Your task to perform on an android device: uninstall "Google Calendar" Image 0: 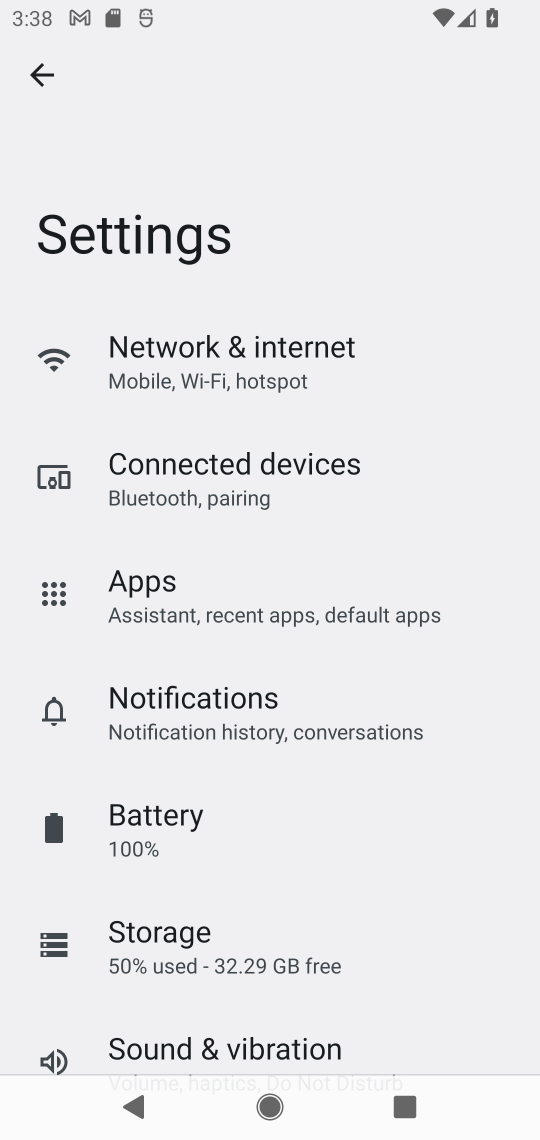
Step 0: press home button
Your task to perform on an android device: uninstall "Google Calendar" Image 1: 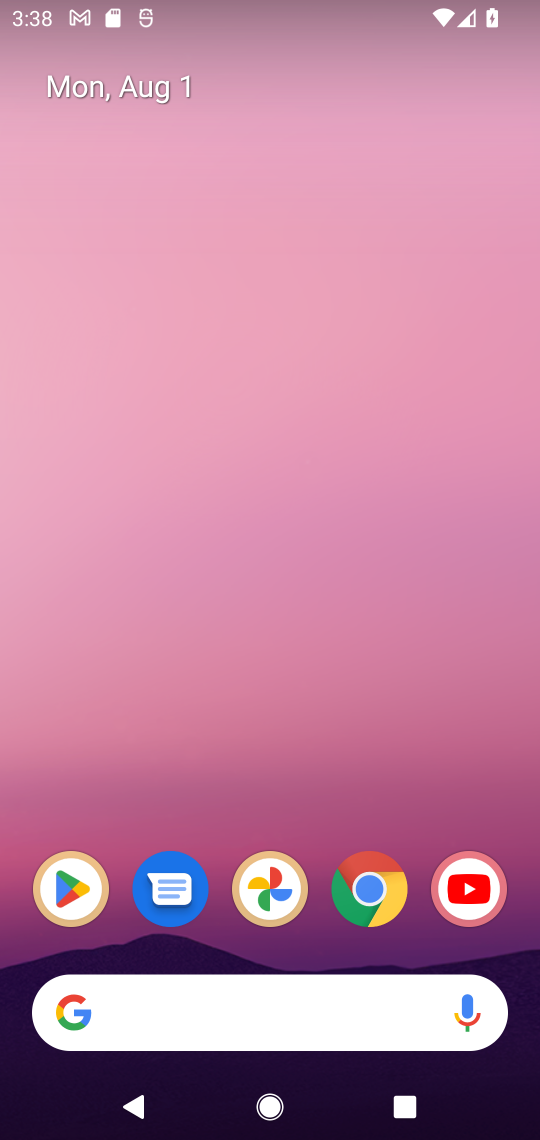
Step 1: click (97, 875)
Your task to perform on an android device: uninstall "Google Calendar" Image 2: 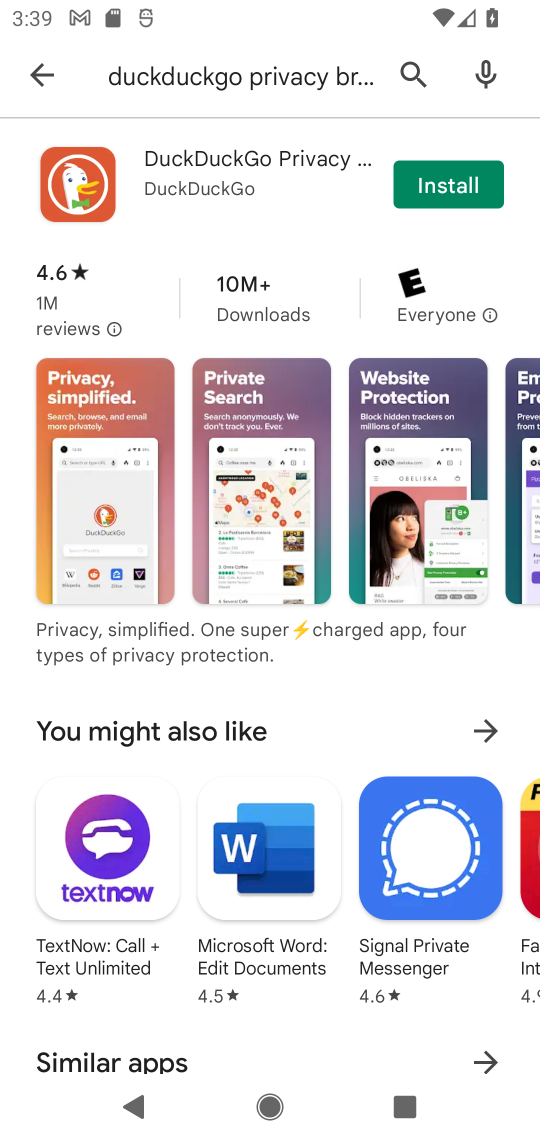
Step 2: click (400, 64)
Your task to perform on an android device: uninstall "Google Calendar" Image 3: 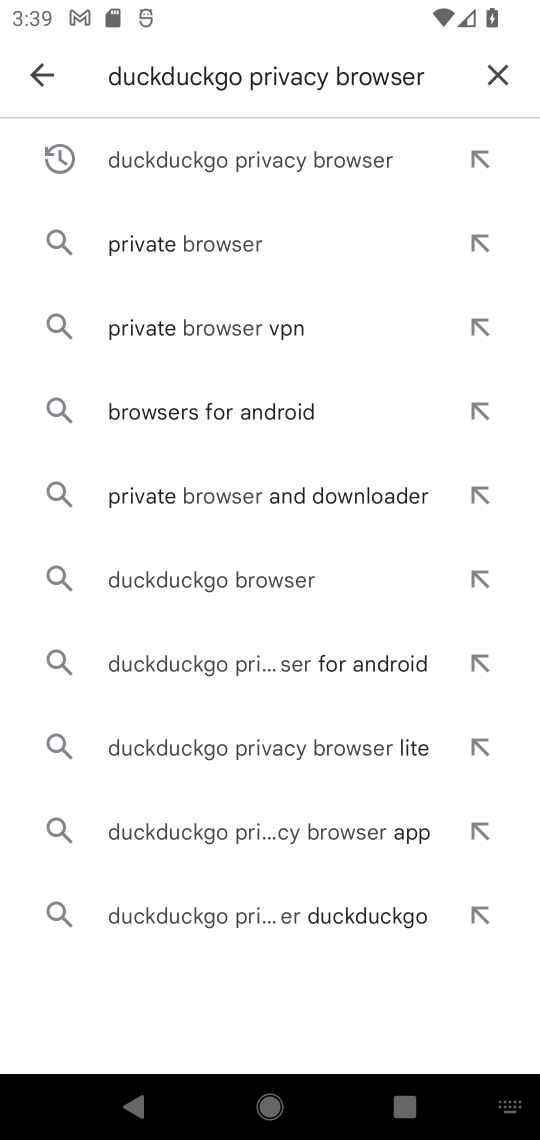
Step 3: click (499, 85)
Your task to perform on an android device: uninstall "Google Calendar" Image 4: 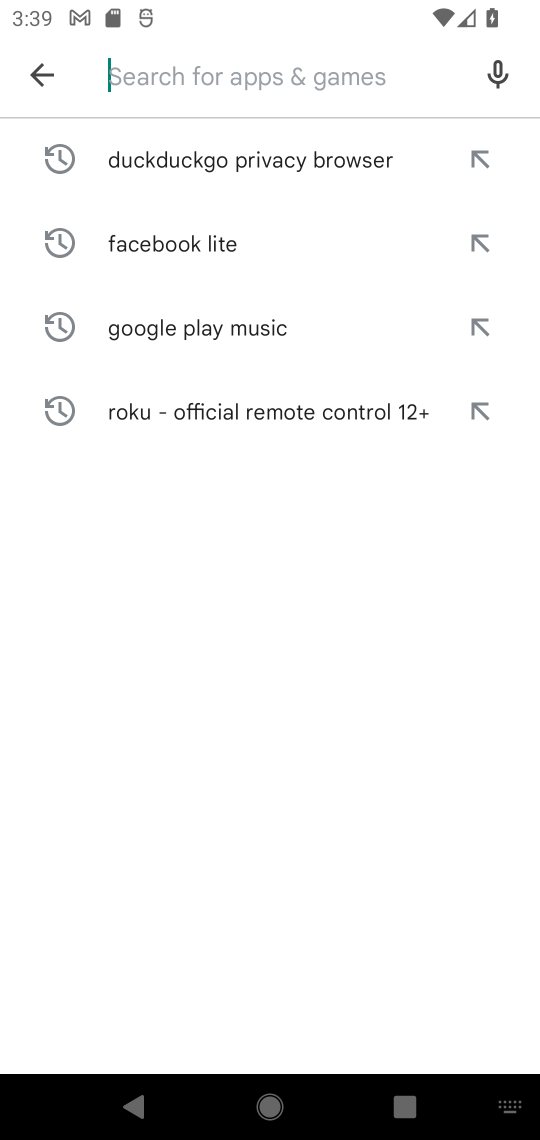
Step 4: type "Google Calendar"
Your task to perform on an android device: uninstall "Google Calendar" Image 5: 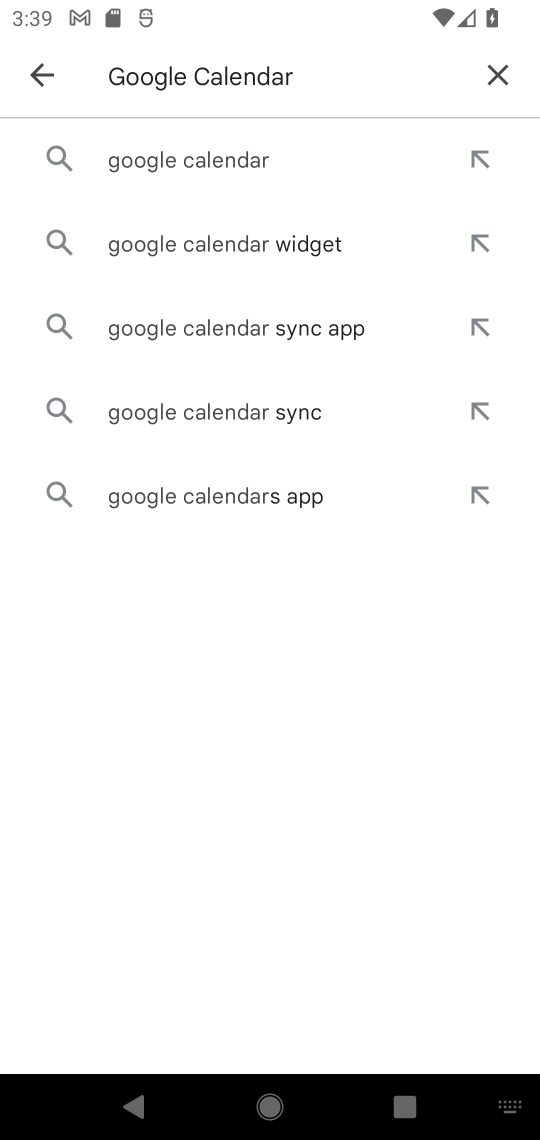
Step 5: click (222, 153)
Your task to perform on an android device: uninstall "Google Calendar" Image 6: 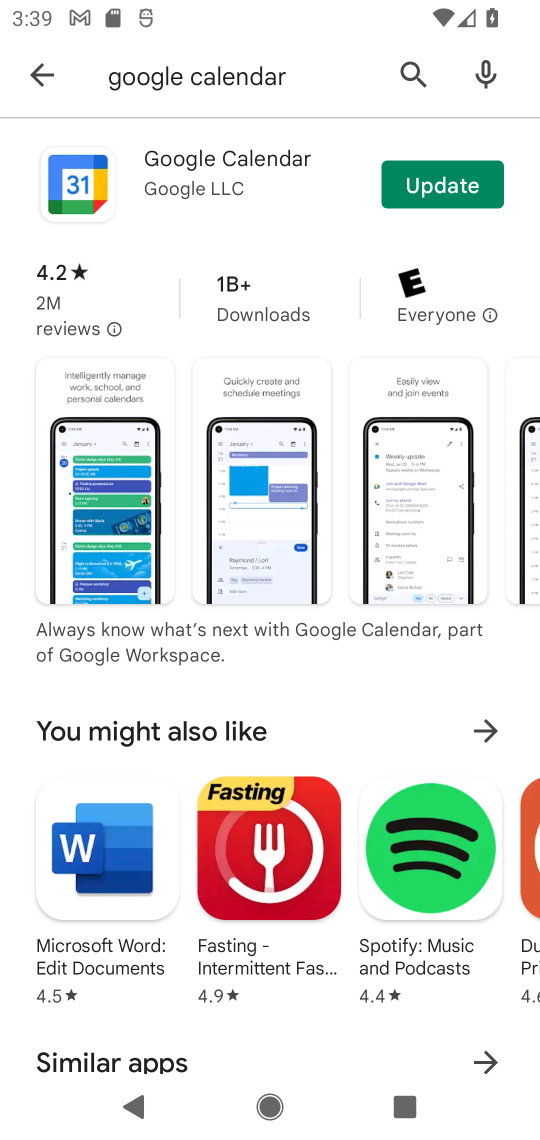
Step 6: click (267, 194)
Your task to perform on an android device: uninstall "Google Calendar" Image 7: 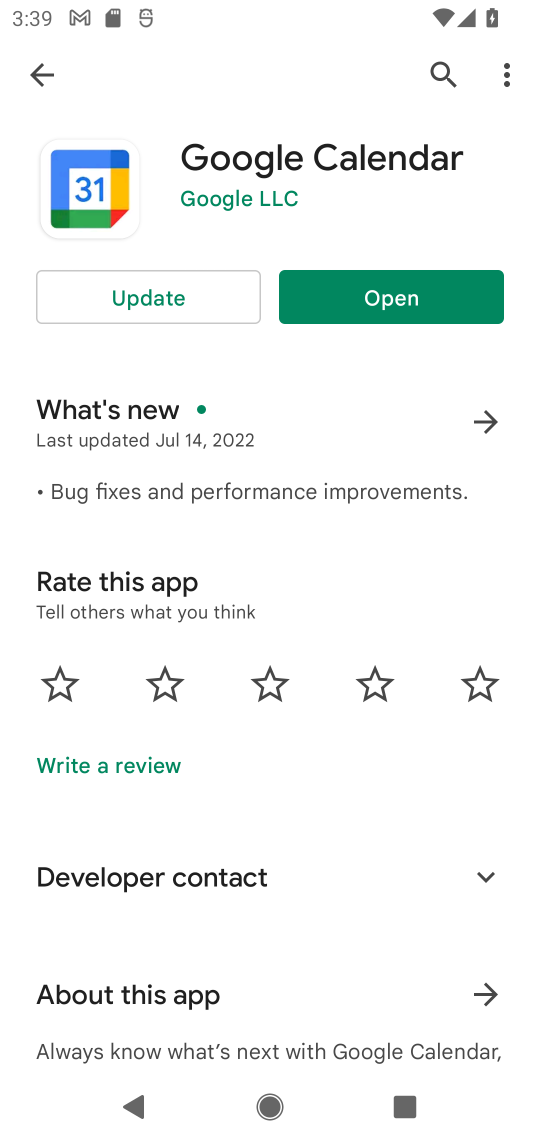
Step 7: task complete